Your task to perform on an android device: change the clock display to show seconds Image 0: 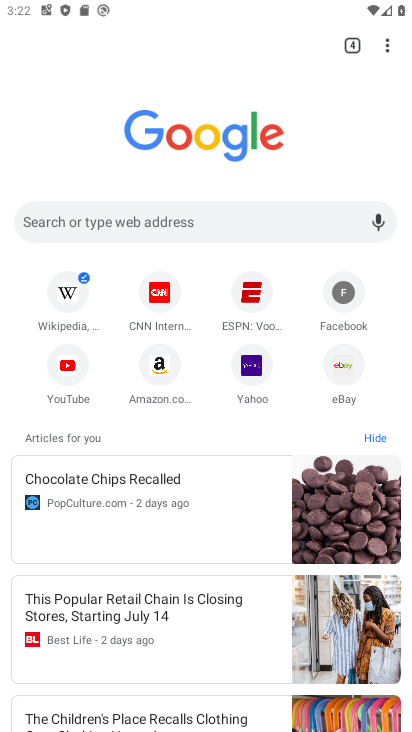
Step 0: press home button
Your task to perform on an android device: change the clock display to show seconds Image 1: 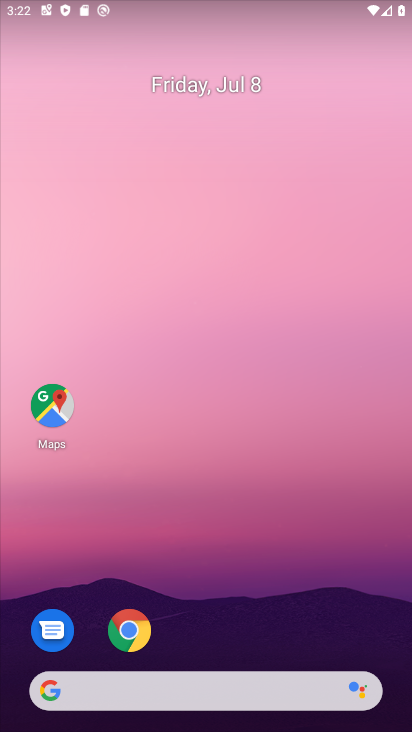
Step 1: drag from (268, 633) to (229, 29)
Your task to perform on an android device: change the clock display to show seconds Image 2: 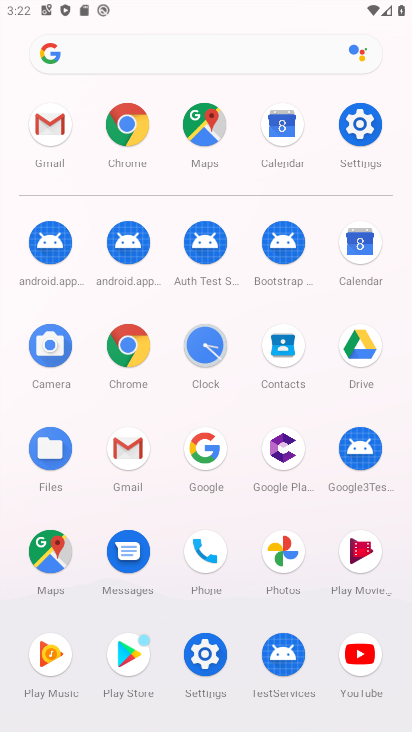
Step 2: click (215, 365)
Your task to perform on an android device: change the clock display to show seconds Image 3: 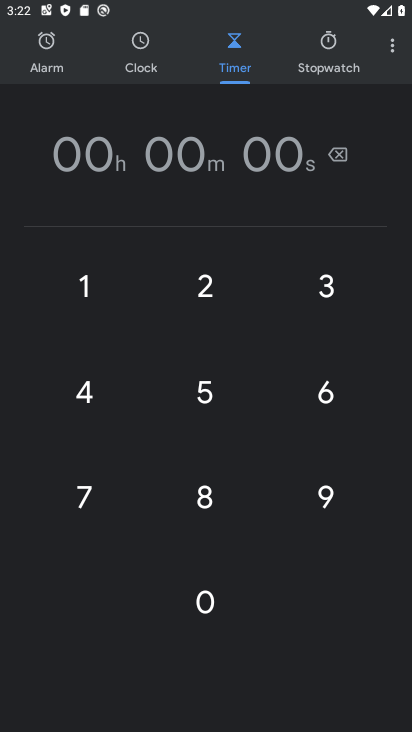
Step 3: click (391, 59)
Your task to perform on an android device: change the clock display to show seconds Image 4: 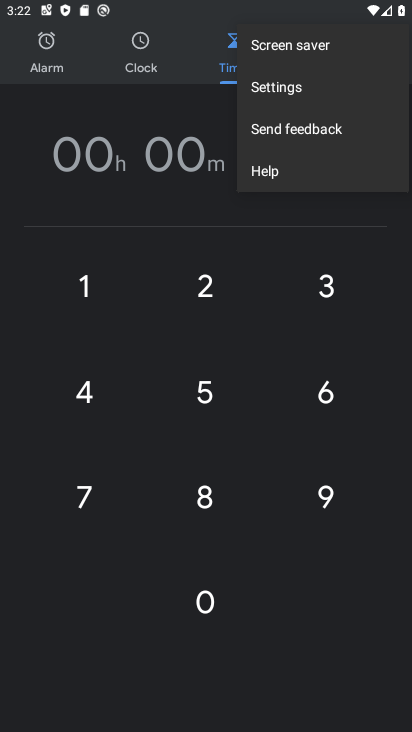
Step 4: click (286, 101)
Your task to perform on an android device: change the clock display to show seconds Image 5: 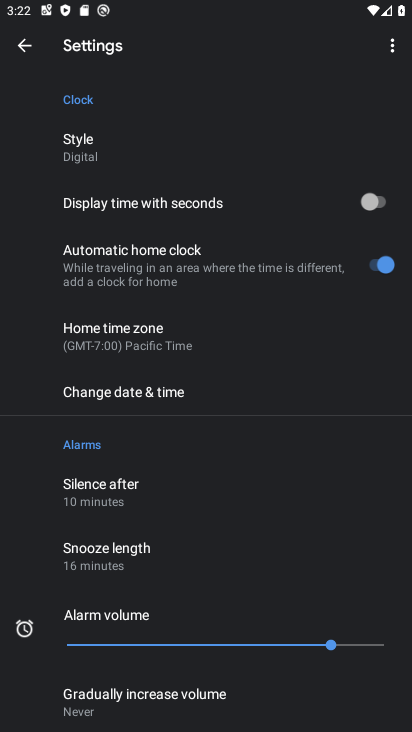
Step 5: click (266, 210)
Your task to perform on an android device: change the clock display to show seconds Image 6: 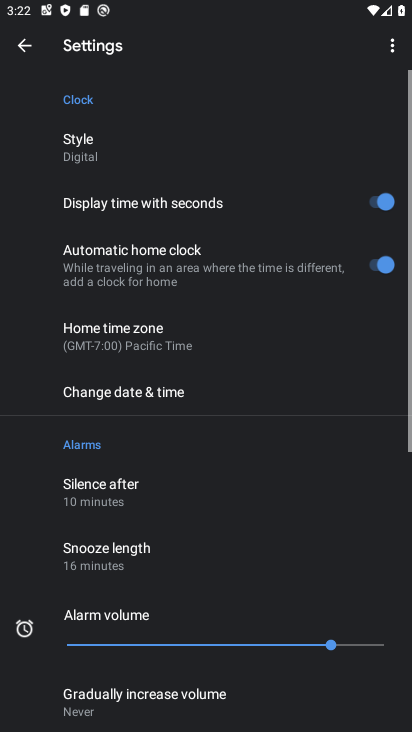
Step 6: task complete